Your task to perform on an android device: open device folders in google photos Image 0: 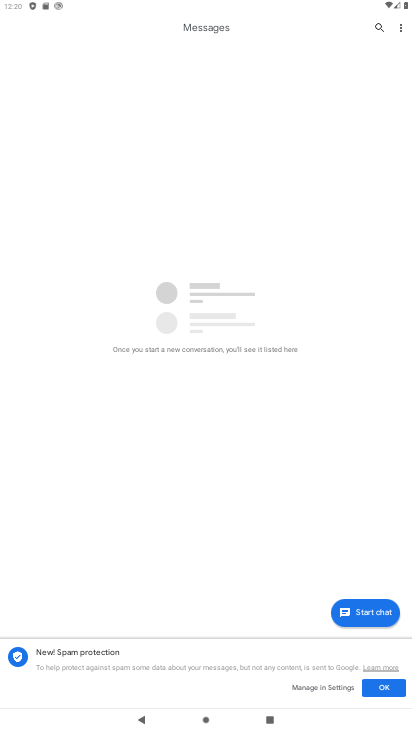
Step 0: press home button
Your task to perform on an android device: open device folders in google photos Image 1: 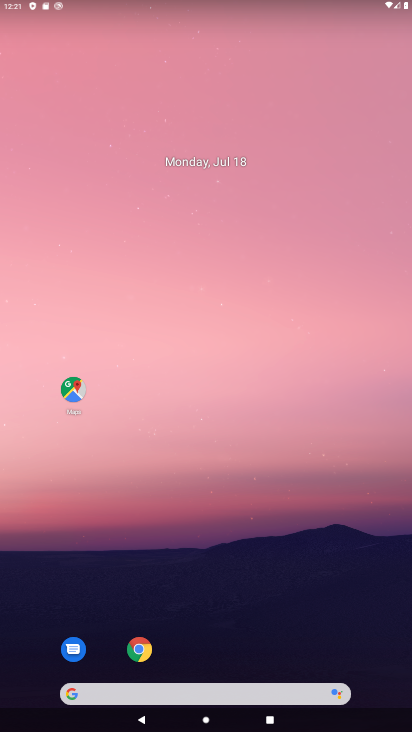
Step 1: drag from (400, 683) to (330, 181)
Your task to perform on an android device: open device folders in google photos Image 2: 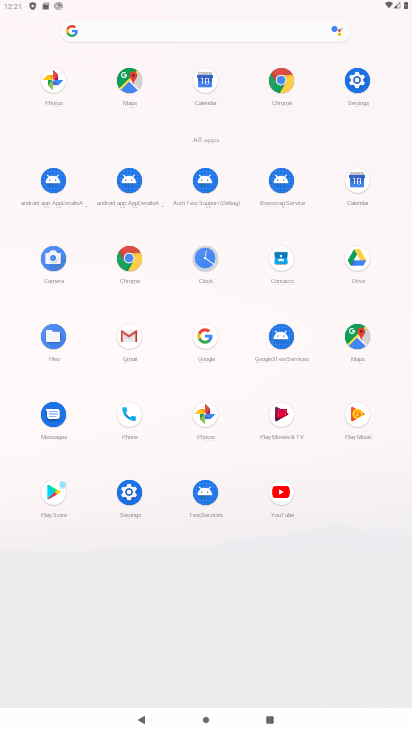
Step 2: click (53, 82)
Your task to perform on an android device: open device folders in google photos Image 3: 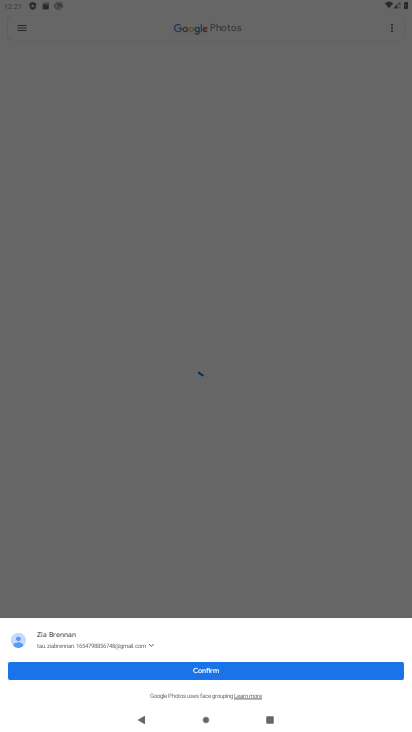
Step 3: click (21, 35)
Your task to perform on an android device: open device folders in google photos Image 4: 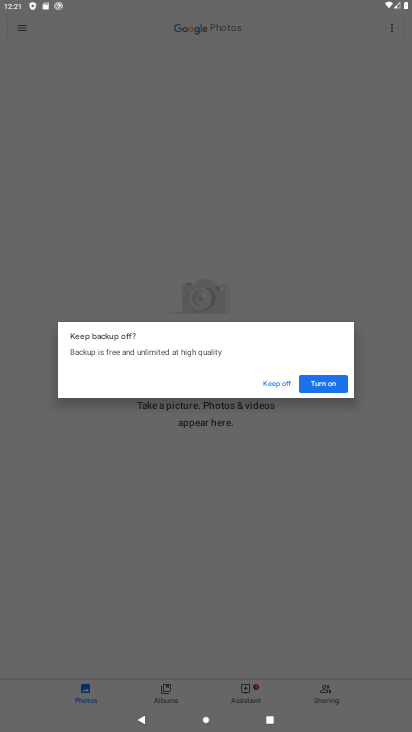
Step 4: click (309, 389)
Your task to perform on an android device: open device folders in google photos Image 5: 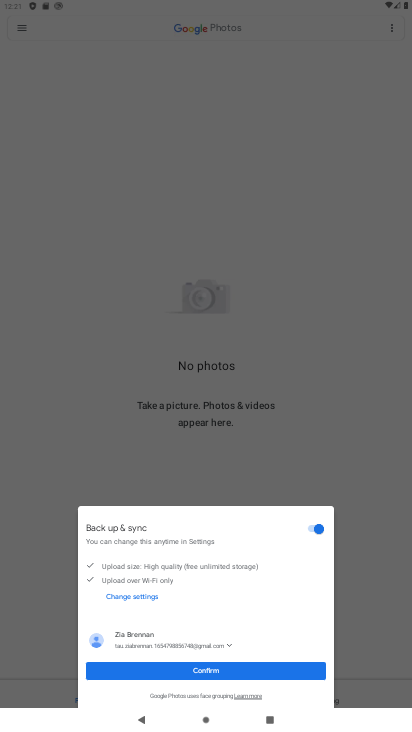
Step 5: click (220, 672)
Your task to perform on an android device: open device folders in google photos Image 6: 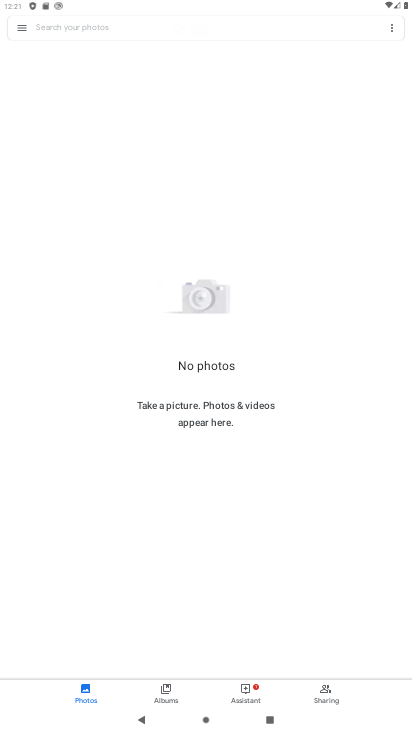
Step 6: click (21, 32)
Your task to perform on an android device: open device folders in google photos Image 7: 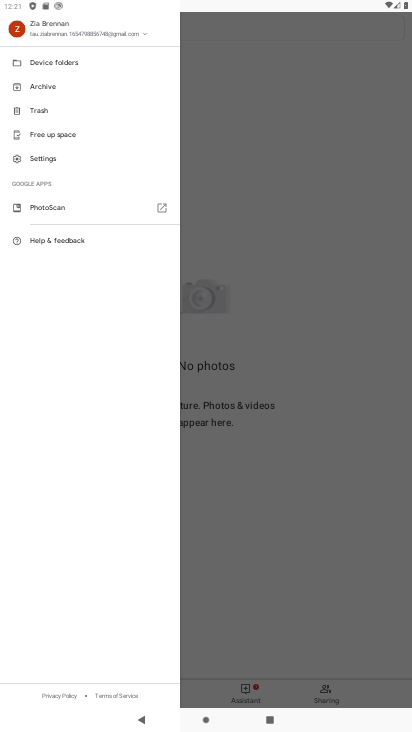
Step 7: click (48, 64)
Your task to perform on an android device: open device folders in google photos Image 8: 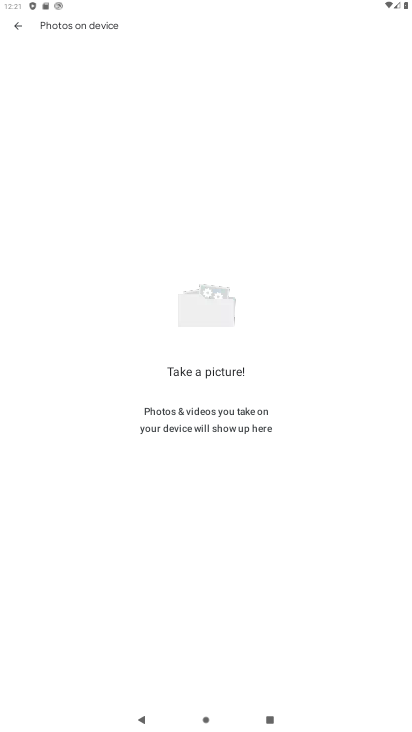
Step 8: task complete